Your task to perform on an android device: Search for seafood restaurants on Google Maps Image 0: 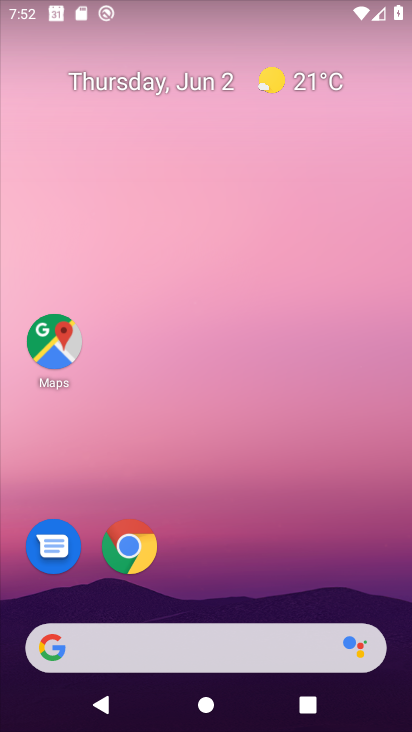
Step 0: drag from (282, 498) to (288, 141)
Your task to perform on an android device: Search for seafood restaurants on Google Maps Image 1: 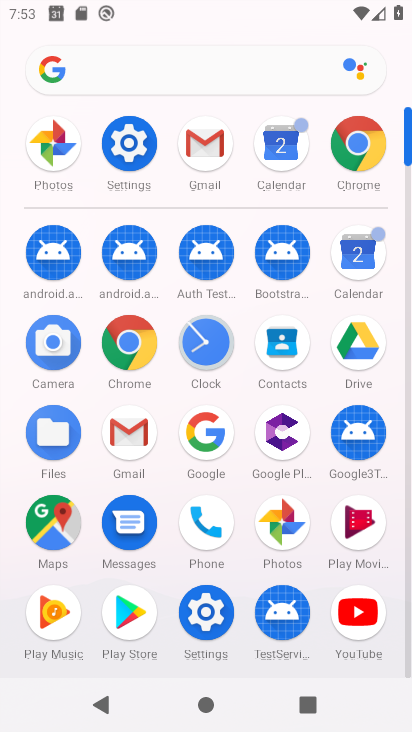
Step 1: click (59, 520)
Your task to perform on an android device: Search for seafood restaurants on Google Maps Image 2: 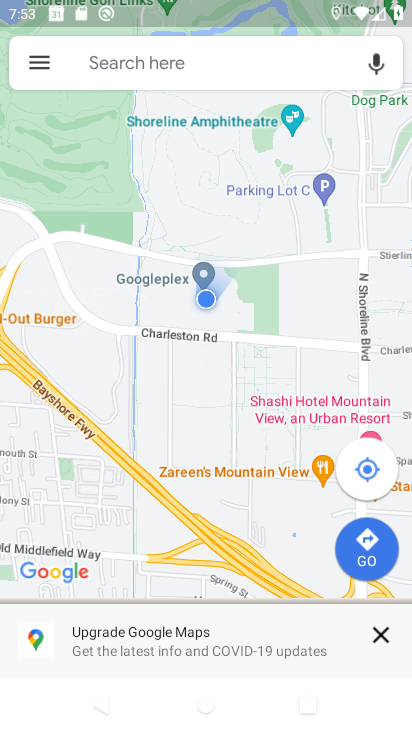
Step 2: click (93, 49)
Your task to perform on an android device: Search for seafood restaurants on Google Maps Image 3: 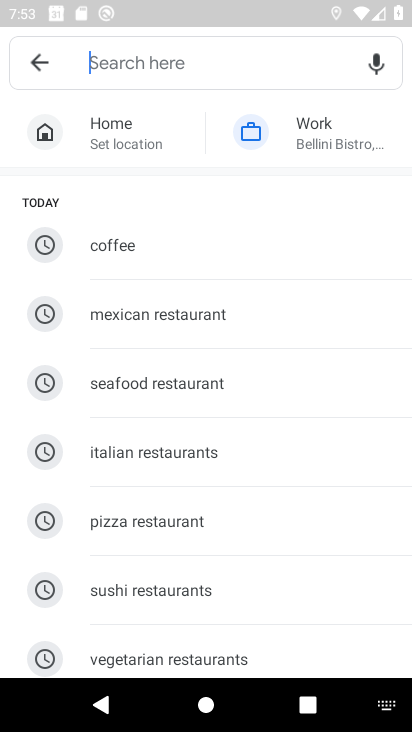
Step 3: type "seafood restaurants"
Your task to perform on an android device: Search for seafood restaurants on Google Maps Image 4: 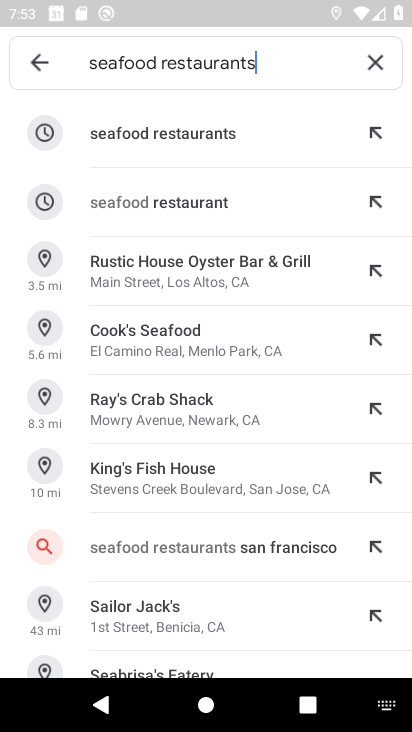
Step 4: click (248, 147)
Your task to perform on an android device: Search for seafood restaurants on Google Maps Image 5: 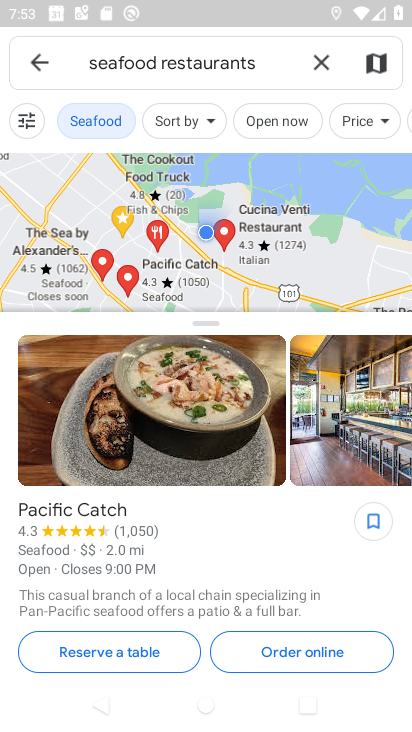
Step 5: task complete